Your task to perform on an android device: Open maps Image 0: 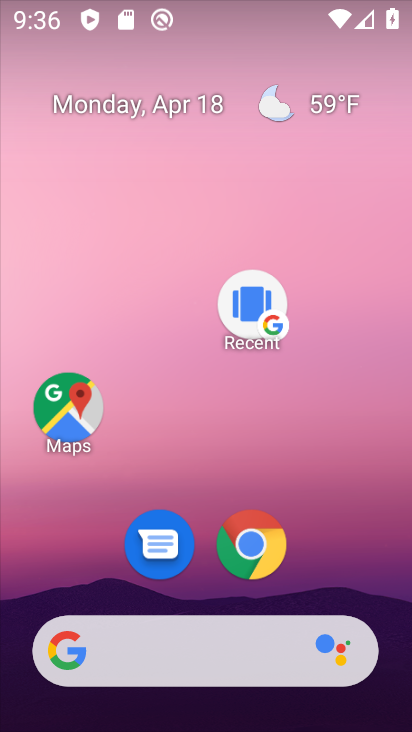
Step 0: click (84, 415)
Your task to perform on an android device: Open maps Image 1: 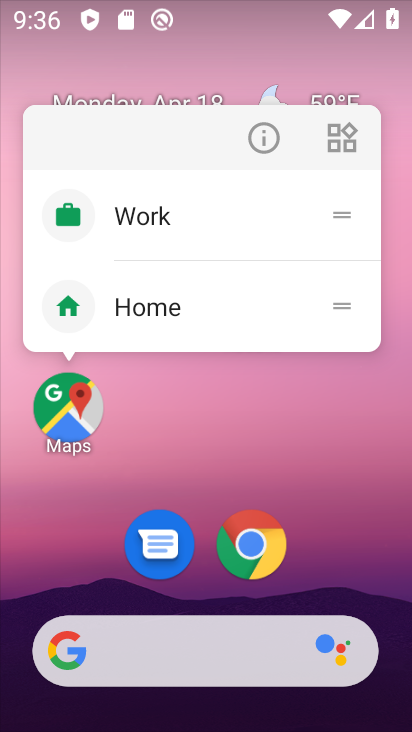
Step 1: click (63, 421)
Your task to perform on an android device: Open maps Image 2: 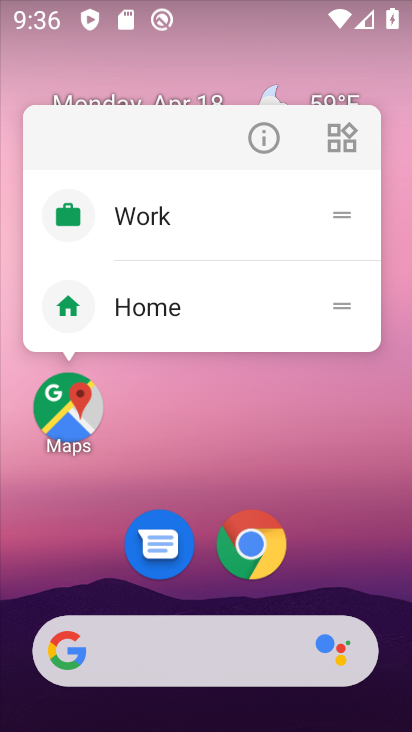
Step 2: drag from (392, 579) to (382, 336)
Your task to perform on an android device: Open maps Image 3: 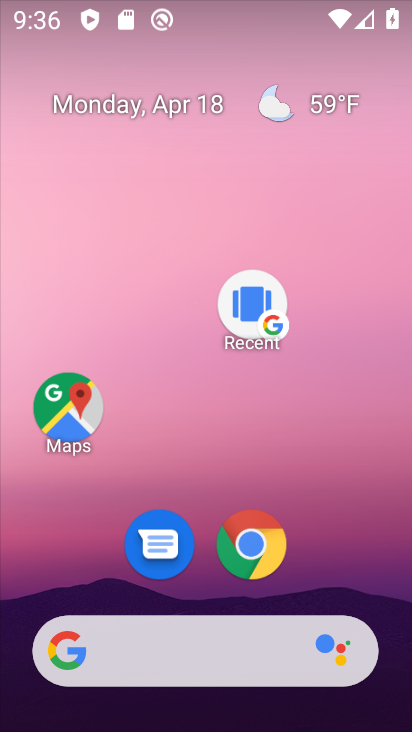
Step 3: drag from (348, 543) to (292, 72)
Your task to perform on an android device: Open maps Image 4: 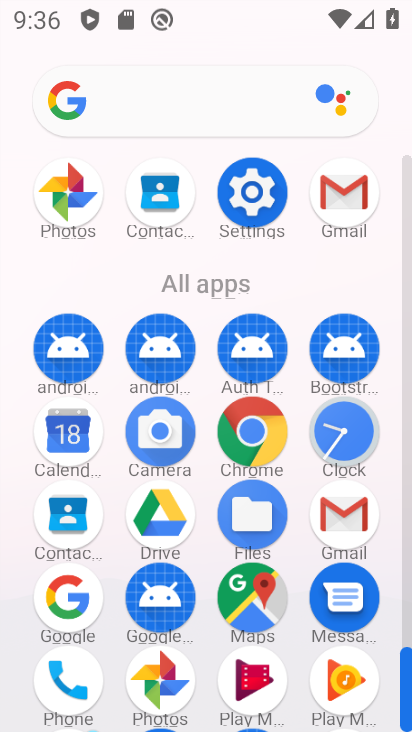
Step 4: click (254, 614)
Your task to perform on an android device: Open maps Image 5: 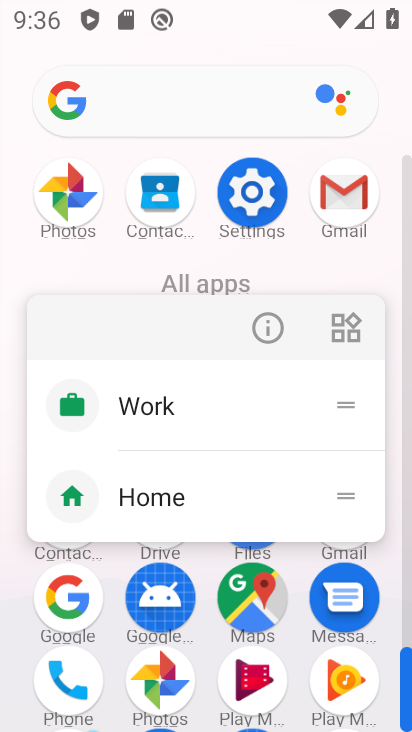
Step 5: click (254, 614)
Your task to perform on an android device: Open maps Image 6: 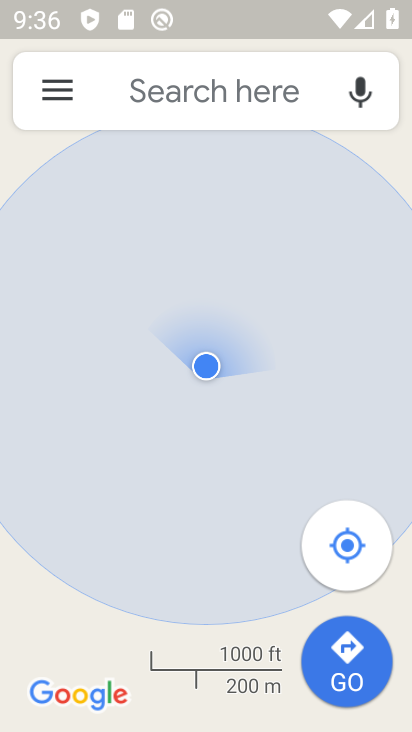
Step 6: task complete